Your task to perform on an android device: What's the weather like in Chicago? Image 0: 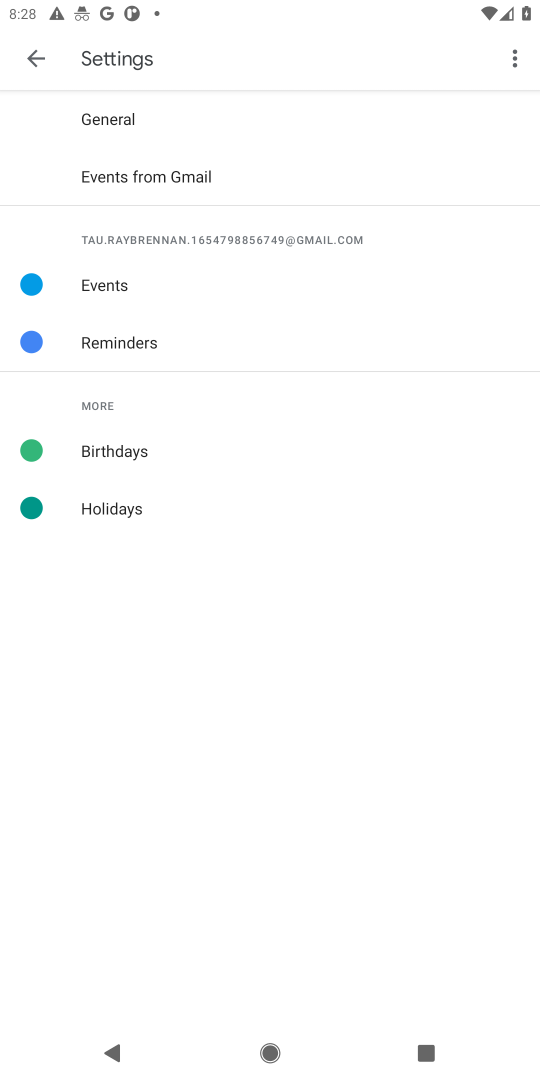
Step 0: press home button
Your task to perform on an android device: What's the weather like in Chicago? Image 1: 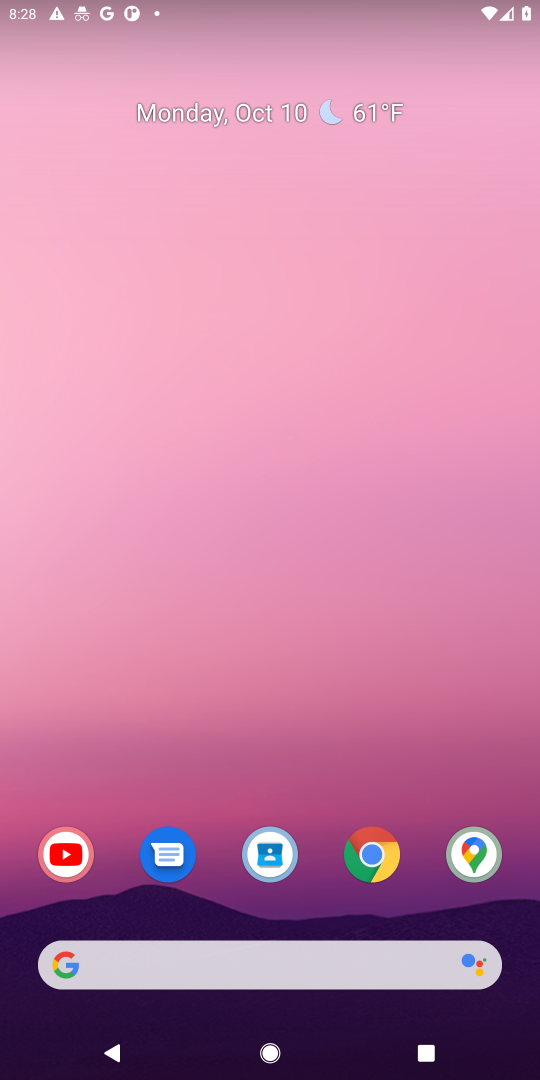
Step 1: click (378, 852)
Your task to perform on an android device: What's the weather like in Chicago? Image 2: 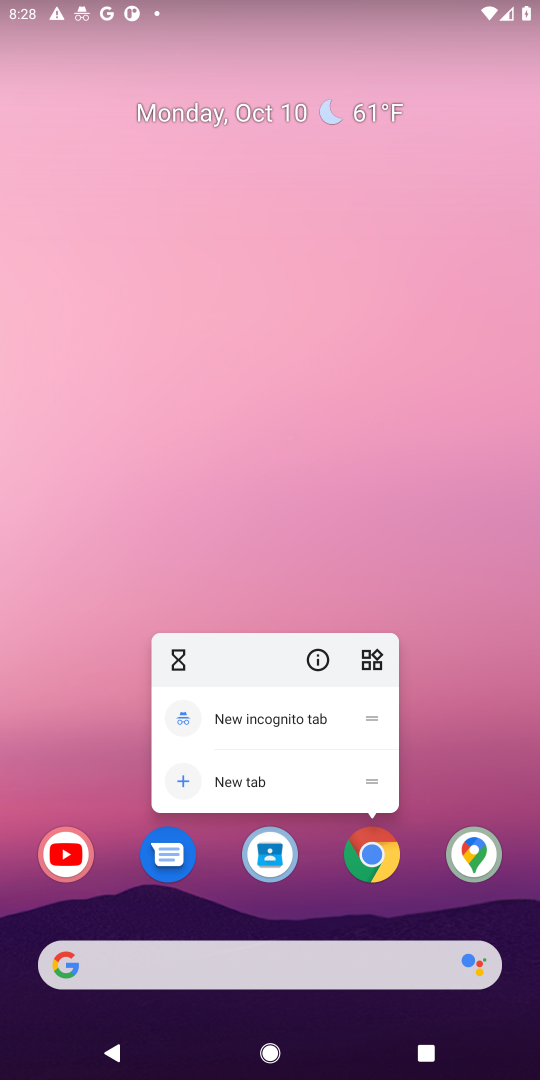
Step 2: click (378, 850)
Your task to perform on an android device: What's the weather like in Chicago? Image 3: 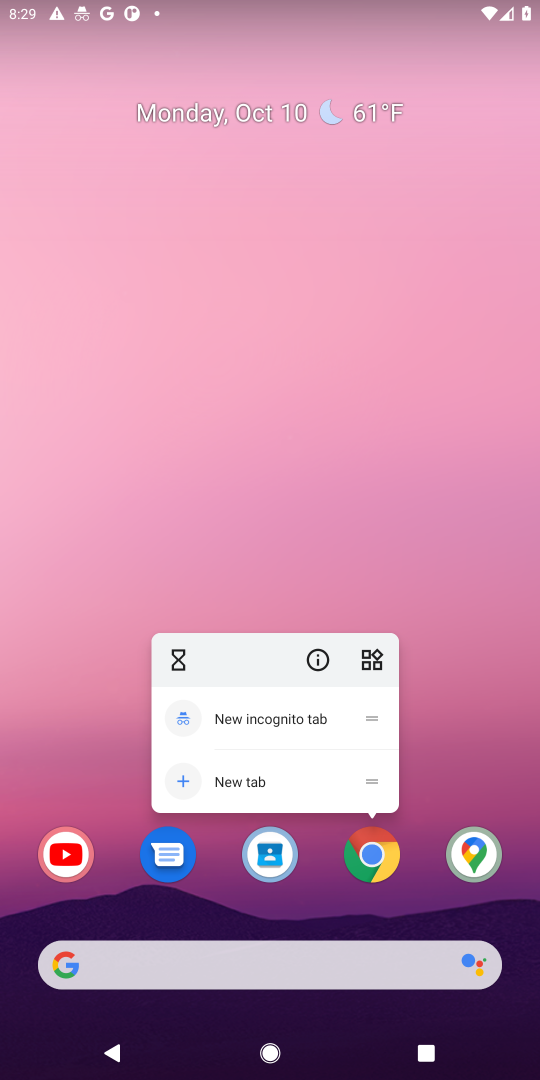
Step 3: click (378, 853)
Your task to perform on an android device: What's the weather like in Chicago? Image 4: 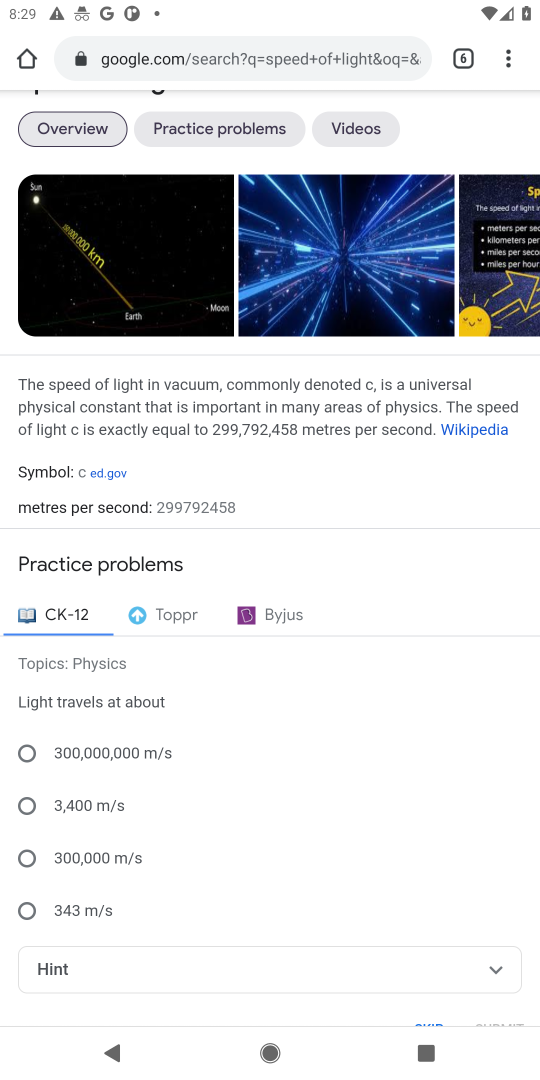
Step 4: click (197, 58)
Your task to perform on an android device: What's the weather like in Chicago? Image 5: 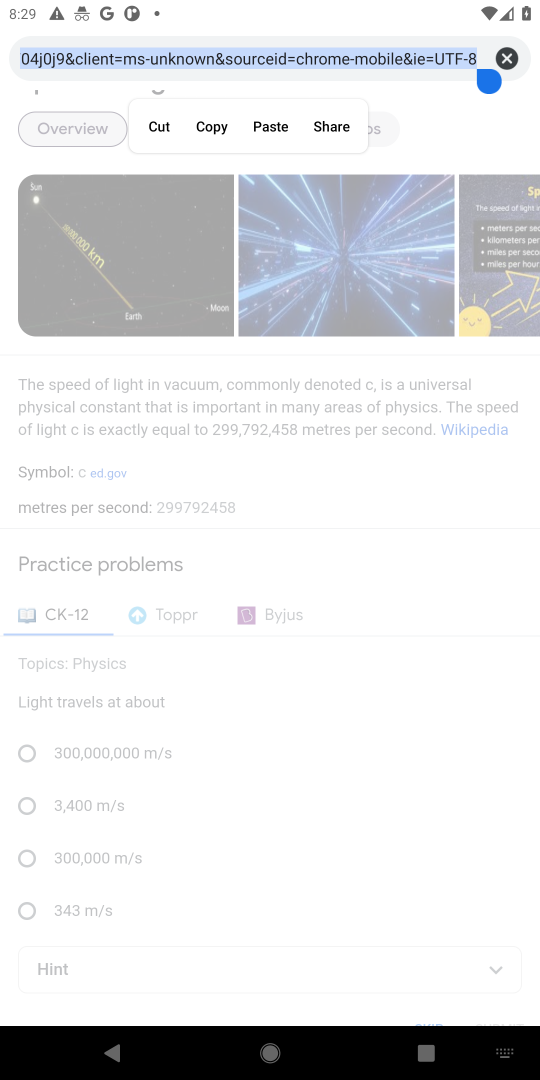
Step 5: click (506, 56)
Your task to perform on an android device: What's the weather like in Chicago? Image 6: 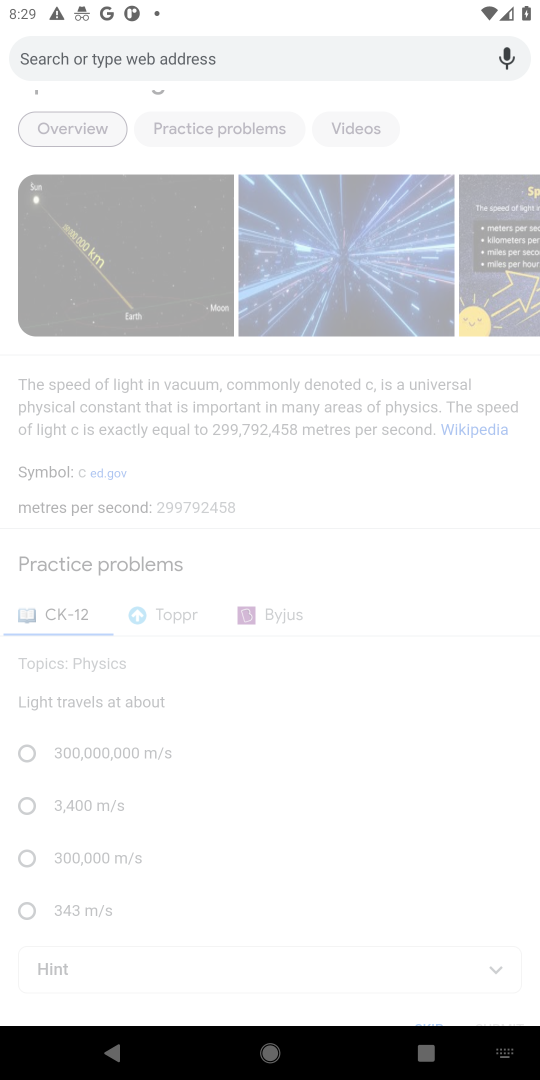
Step 6: type "weather like in Chicago"
Your task to perform on an android device: What's the weather like in Chicago? Image 7: 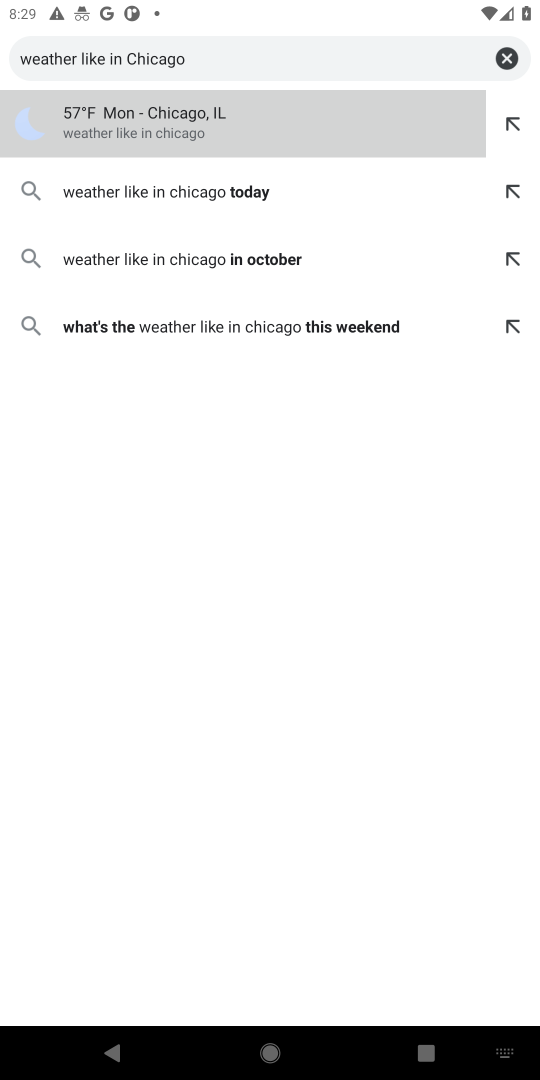
Step 7: click (215, 126)
Your task to perform on an android device: What's the weather like in Chicago? Image 8: 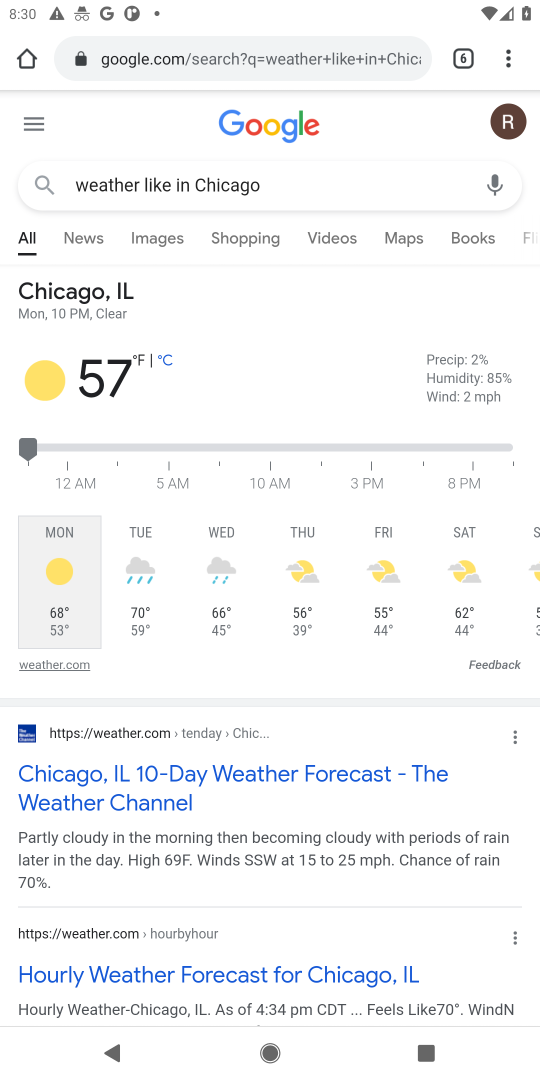
Step 8: task complete